Your task to perform on an android device: Open Google Chrome and open the bookmarks view Image 0: 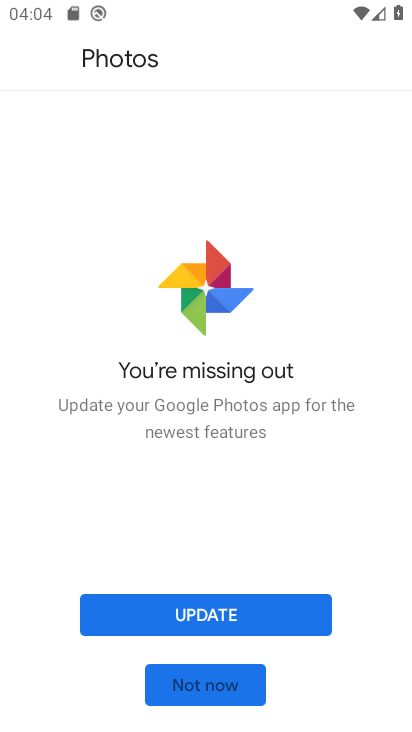
Step 0: press home button
Your task to perform on an android device: Open Google Chrome and open the bookmarks view Image 1: 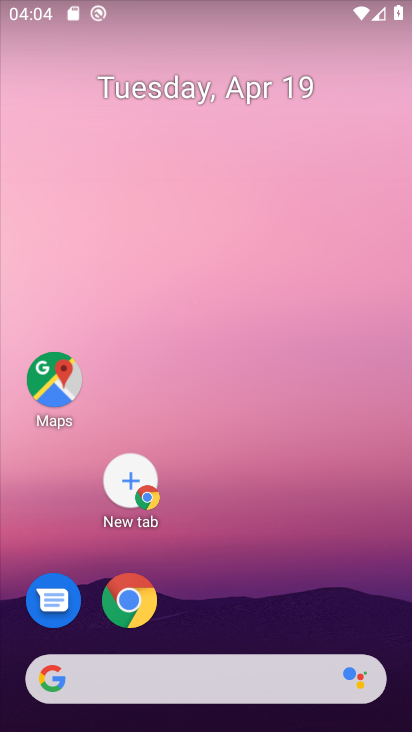
Step 1: click (145, 613)
Your task to perform on an android device: Open Google Chrome and open the bookmarks view Image 2: 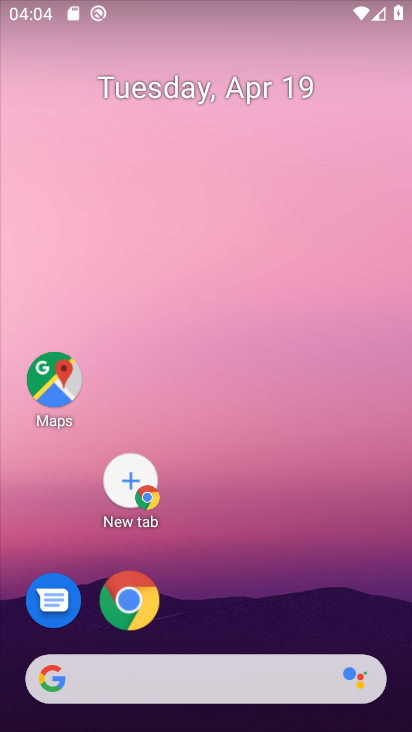
Step 2: click (145, 613)
Your task to perform on an android device: Open Google Chrome and open the bookmarks view Image 3: 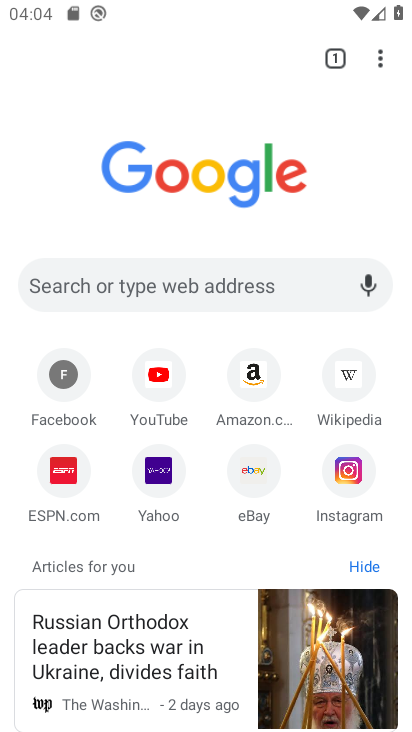
Step 3: click (379, 52)
Your task to perform on an android device: Open Google Chrome and open the bookmarks view Image 4: 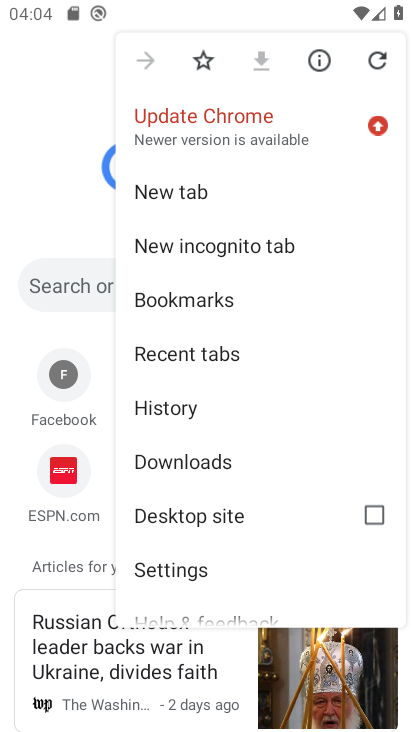
Step 4: click (199, 307)
Your task to perform on an android device: Open Google Chrome and open the bookmarks view Image 5: 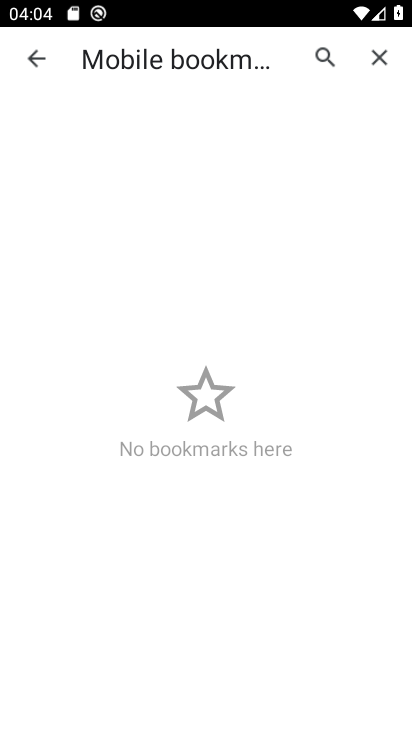
Step 5: task complete